Your task to perform on an android device: Open Google Chrome Image 0: 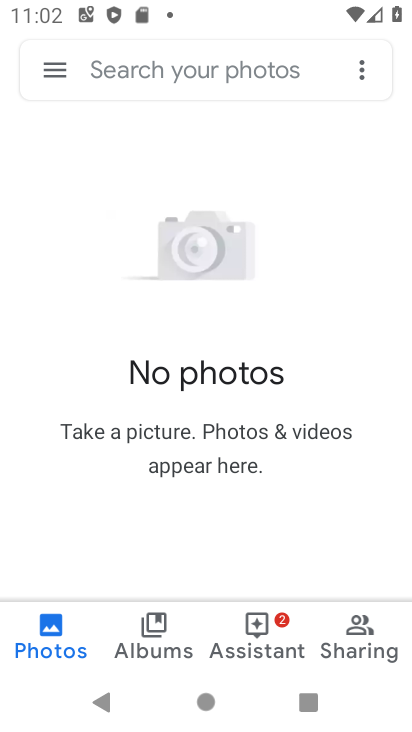
Step 0: press home button
Your task to perform on an android device: Open Google Chrome Image 1: 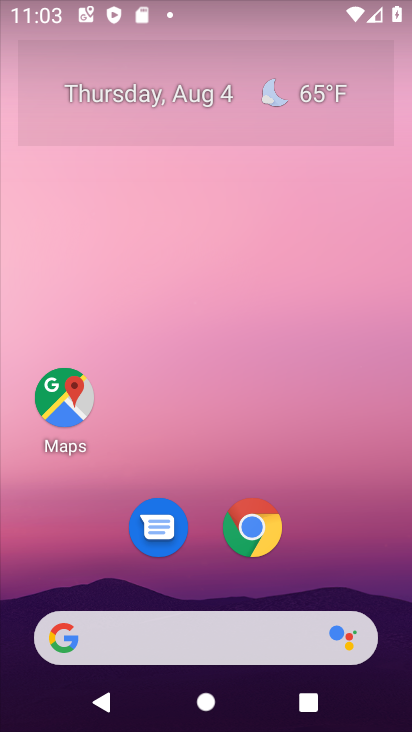
Step 1: click (265, 535)
Your task to perform on an android device: Open Google Chrome Image 2: 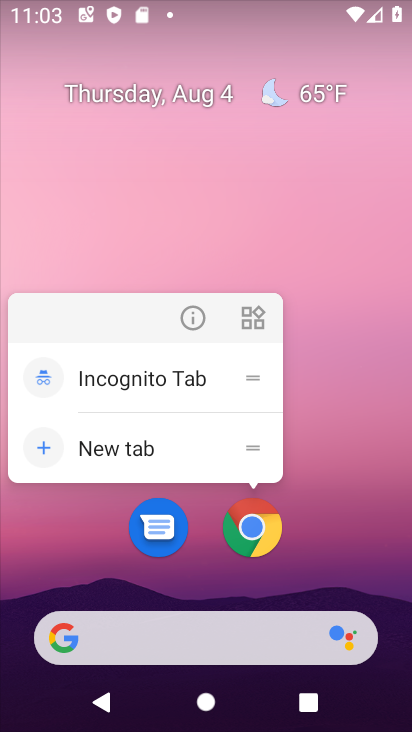
Step 2: click (275, 529)
Your task to perform on an android device: Open Google Chrome Image 3: 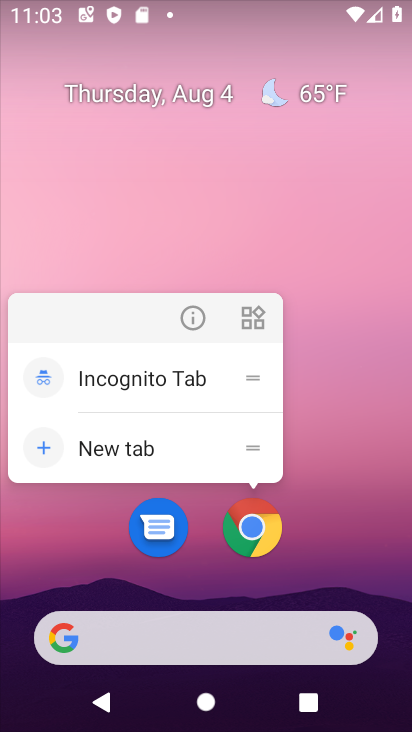
Step 3: click (265, 534)
Your task to perform on an android device: Open Google Chrome Image 4: 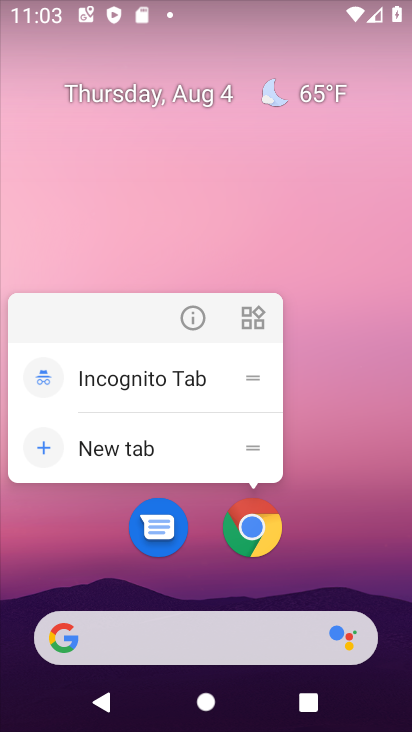
Step 4: click (259, 538)
Your task to perform on an android device: Open Google Chrome Image 5: 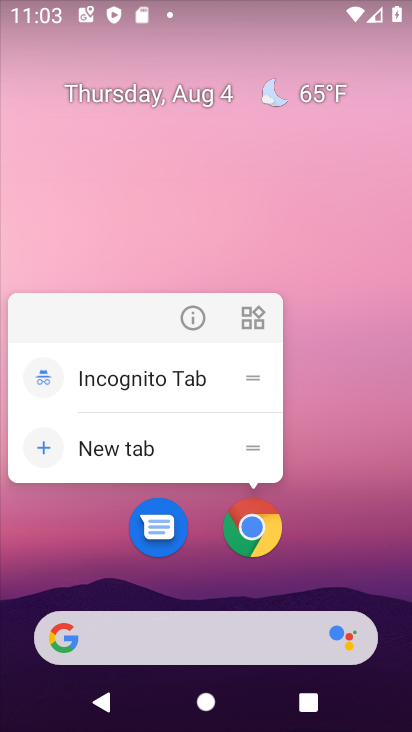
Step 5: click (259, 538)
Your task to perform on an android device: Open Google Chrome Image 6: 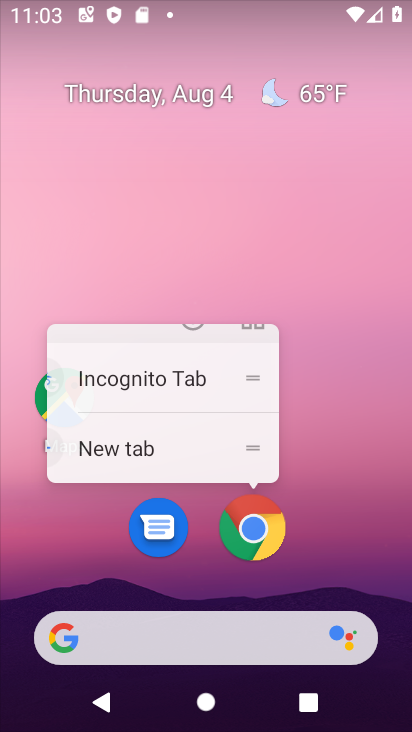
Step 6: click (259, 538)
Your task to perform on an android device: Open Google Chrome Image 7: 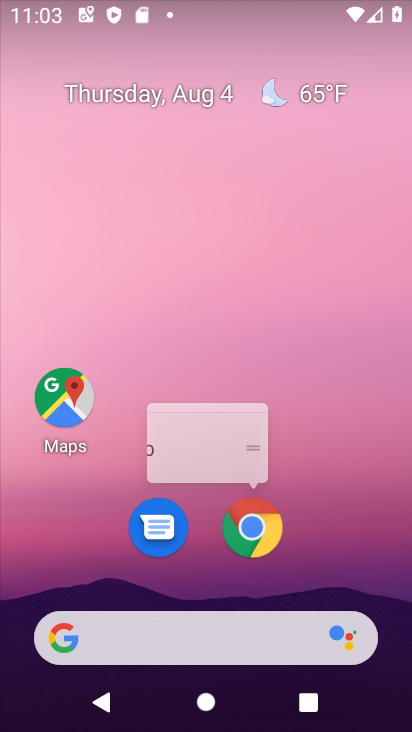
Step 7: click (259, 538)
Your task to perform on an android device: Open Google Chrome Image 8: 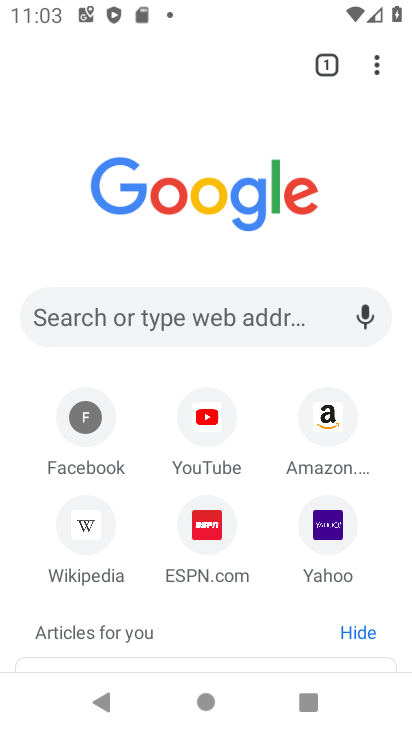
Step 8: task complete